Your task to perform on an android device: change text size in settings app Image 0: 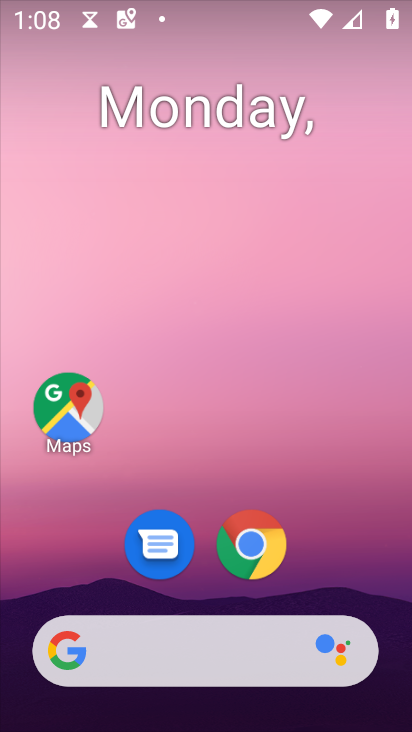
Step 0: drag from (334, 468) to (355, 167)
Your task to perform on an android device: change text size in settings app Image 1: 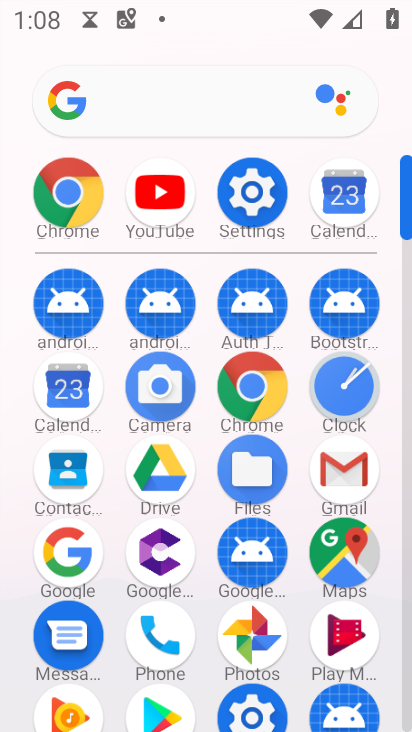
Step 1: click (237, 177)
Your task to perform on an android device: change text size in settings app Image 2: 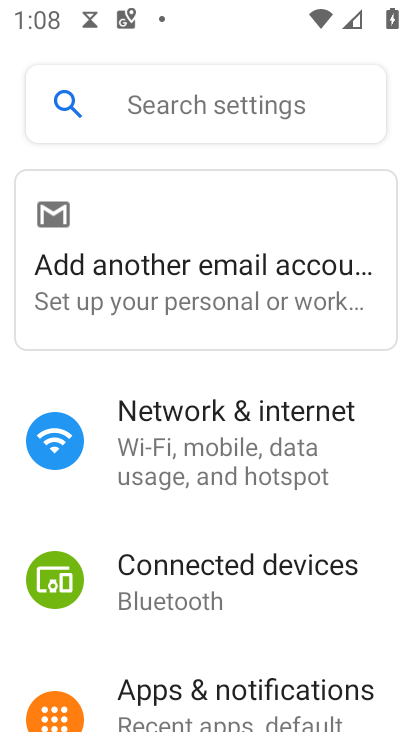
Step 2: drag from (253, 474) to (270, 332)
Your task to perform on an android device: change text size in settings app Image 3: 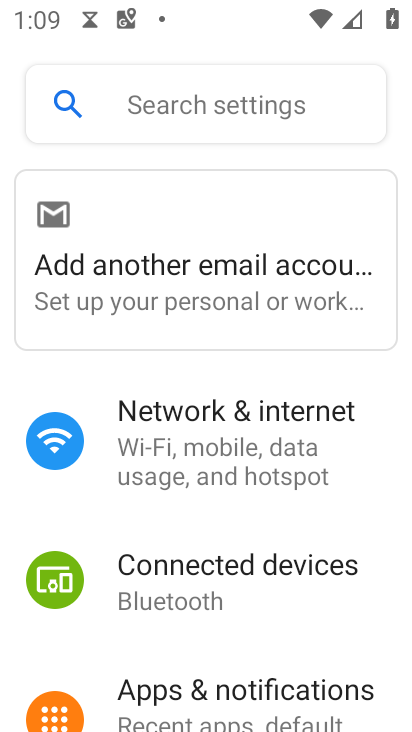
Step 3: drag from (230, 639) to (257, 249)
Your task to perform on an android device: change text size in settings app Image 4: 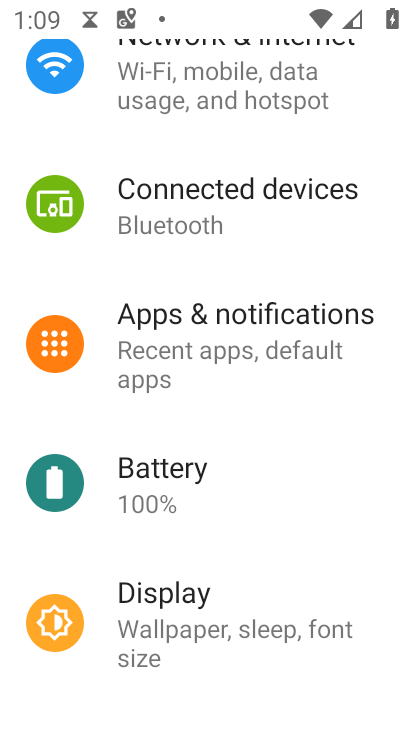
Step 4: drag from (237, 563) to (261, 316)
Your task to perform on an android device: change text size in settings app Image 5: 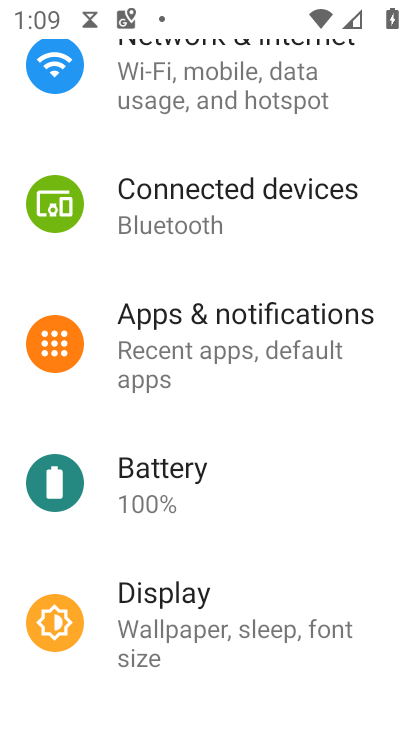
Step 5: drag from (259, 535) to (278, 329)
Your task to perform on an android device: change text size in settings app Image 6: 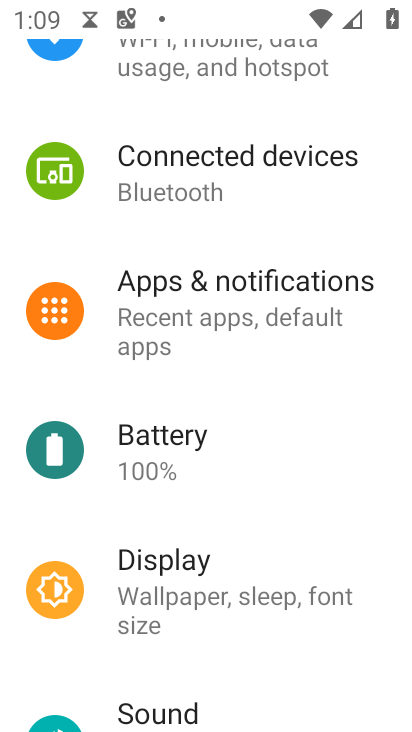
Step 6: drag from (273, 660) to (283, 313)
Your task to perform on an android device: change text size in settings app Image 7: 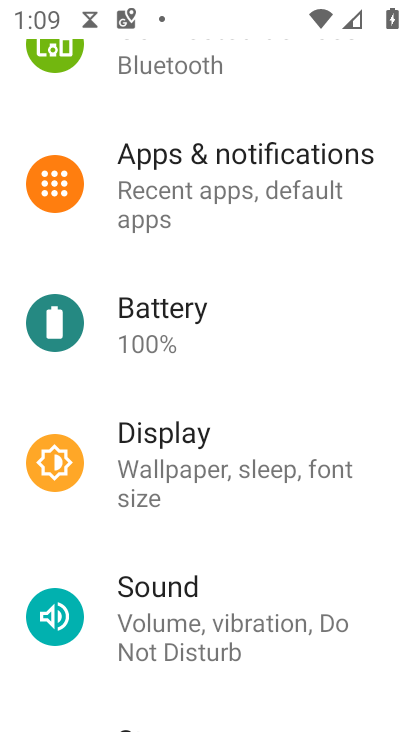
Step 7: click (273, 321)
Your task to perform on an android device: change text size in settings app Image 8: 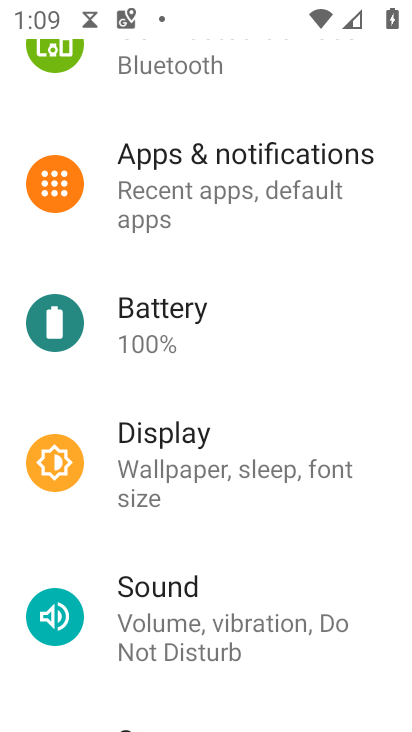
Step 8: click (269, 348)
Your task to perform on an android device: change text size in settings app Image 9: 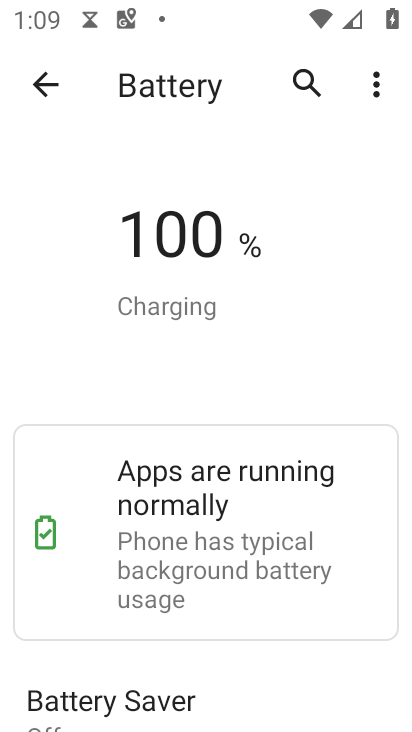
Step 9: click (49, 69)
Your task to perform on an android device: change text size in settings app Image 10: 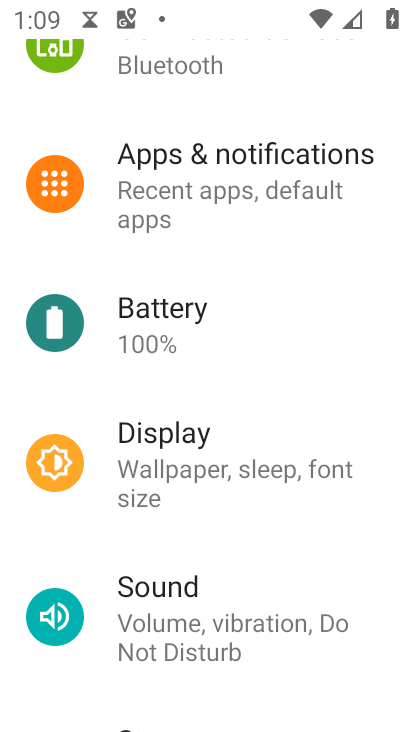
Step 10: drag from (229, 583) to (235, 211)
Your task to perform on an android device: change text size in settings app Image 11: 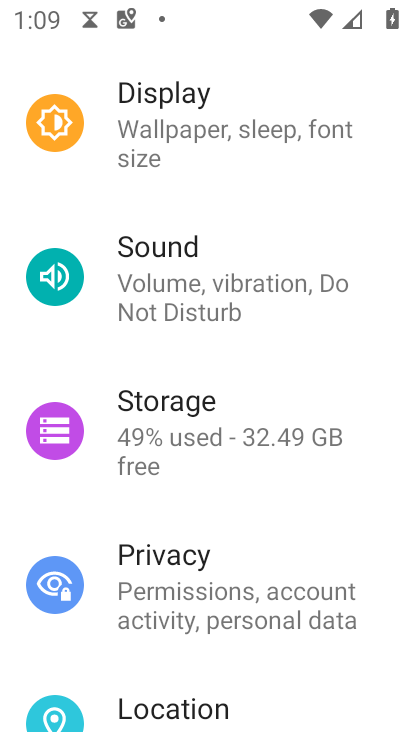
Step 11: drag from (259, 454) to (263, 283)
Your task to perform on an android device: change text size in settings app Image 12: 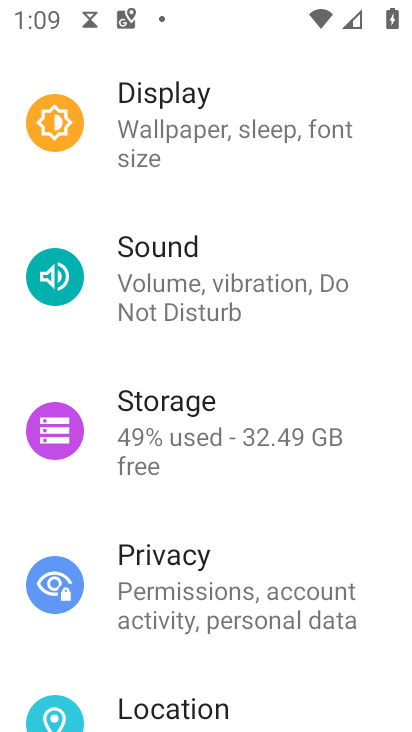
Step 12: drag from (264, 447) to (264, 401)
Your task to perform on an android device: change text size in settings app Image 13: 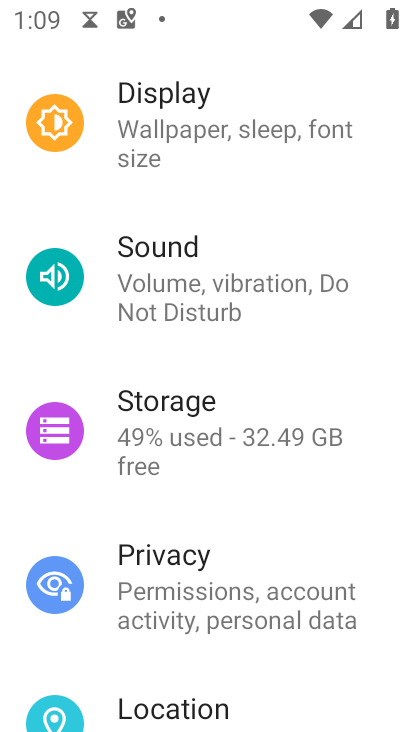
Step 13: click (202, 461)
Your task to perform on an android device: change text size in settings app Image 14: 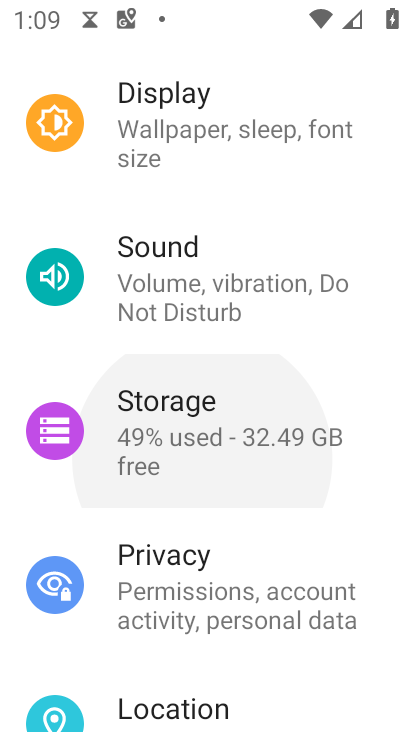
Step 14: drag from (158, 703) to (197, 418)
Your task to perform on an android device: change text size in settings app Image 15: 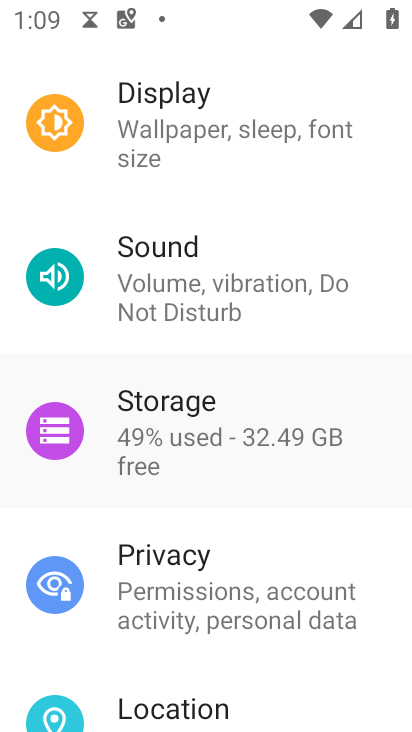
Step 15: drag from (210, 636) to (264, 382)
Your task to perform on an android device: change text size in settings app Image 16: 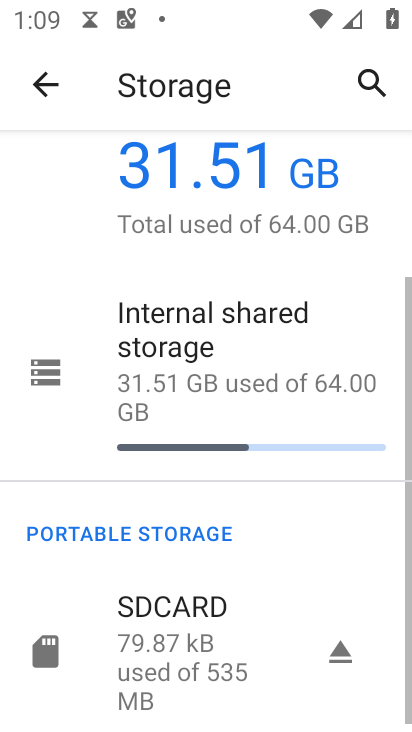
Step 16: drag from (323, 288) to (326, 162)
Your task to perform on an android device: change text size in settings app Image 17: 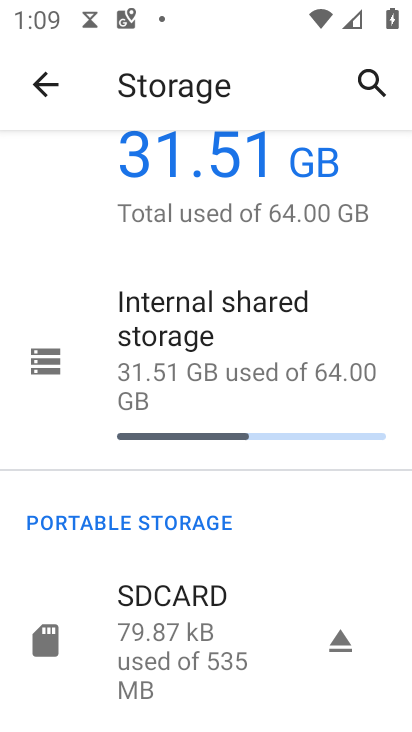
Step 17: click (37, 84)
Your task to perform on an android device: change text size in settings app Image 18: 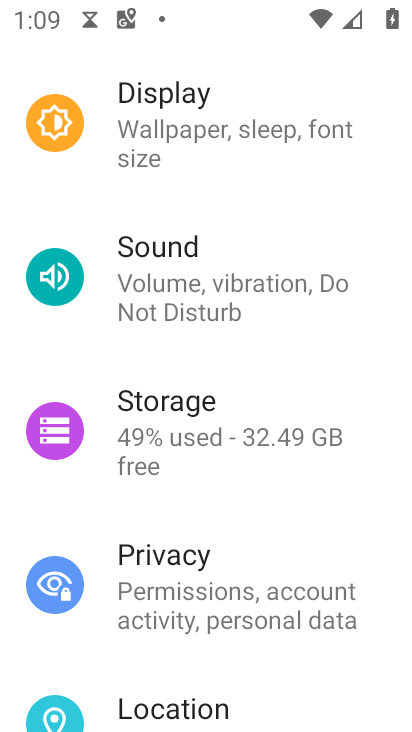
Step 18: drag from (277, 516) to (314, 165)
Your task to perform on an android device: change text size in settings app Image 19: 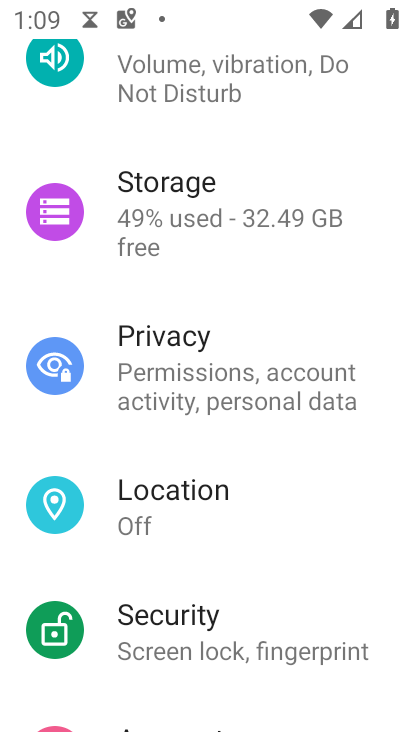
Step 19: drag from (292, 268) to (328, 112)
Your task to perform on an android device: change text size in settings app Image 20: 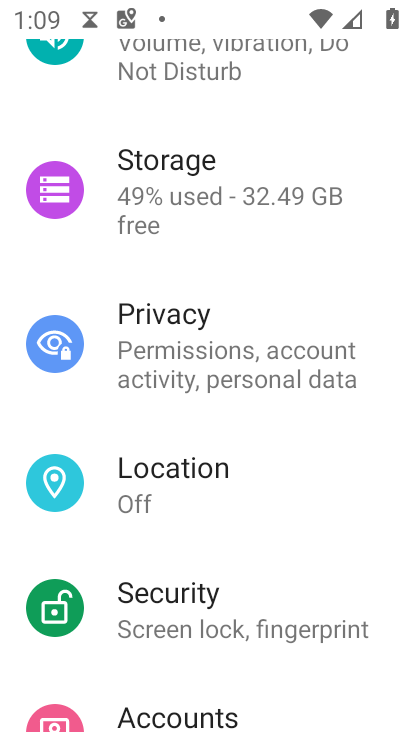
Step 20: drag from (268, 485) to (307, 175)
Your task to perform on an android device: change text size in settings app Image 21: 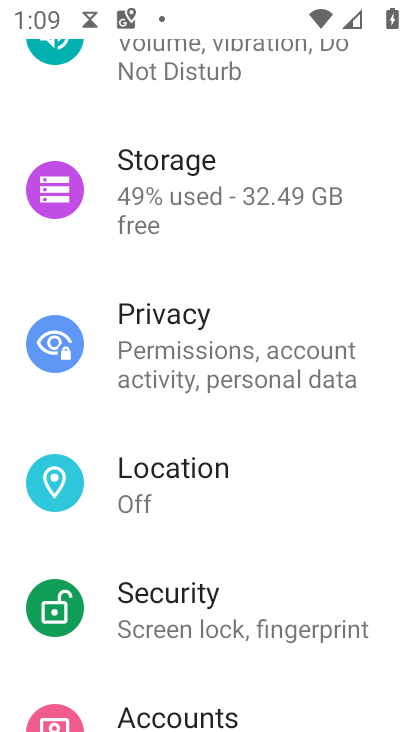
Step 21: drag from (196, 614) to (271, 171)
Your task to perform on an android device: change text size in settings app Image 22: 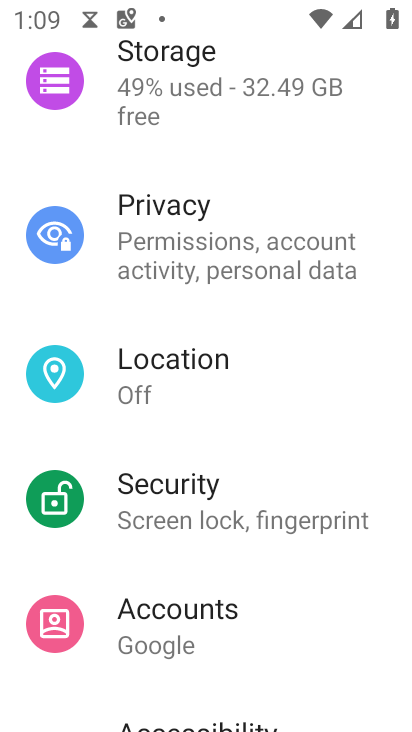
Step 22: drag from (164, 491) to (260, 133)
Your task to perform on an android device: change text size in settings app Image 23: 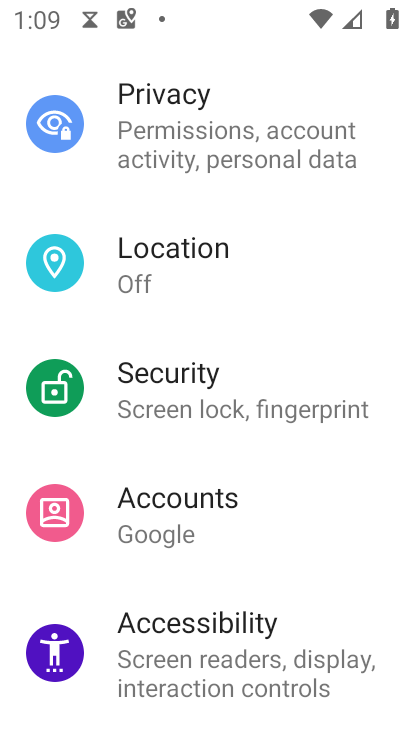
Step 23: drag from (162, 549) to (200, 503)
Your task to perform on an android device: change text size in settings app Image 24: 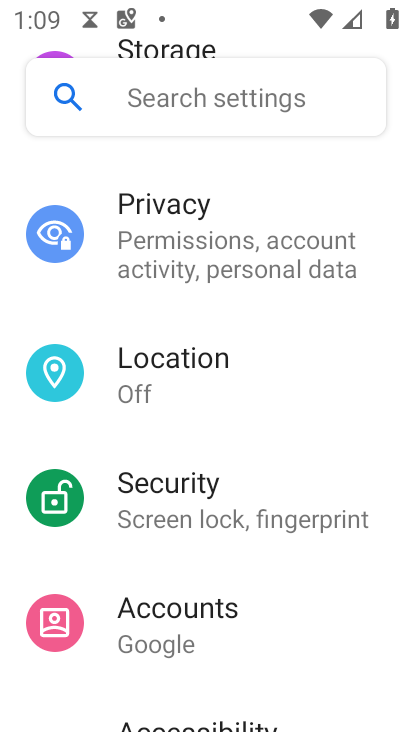
Step 24: click (200, 497)
Your task to perform on an android device: change text size in settings app Image 25: 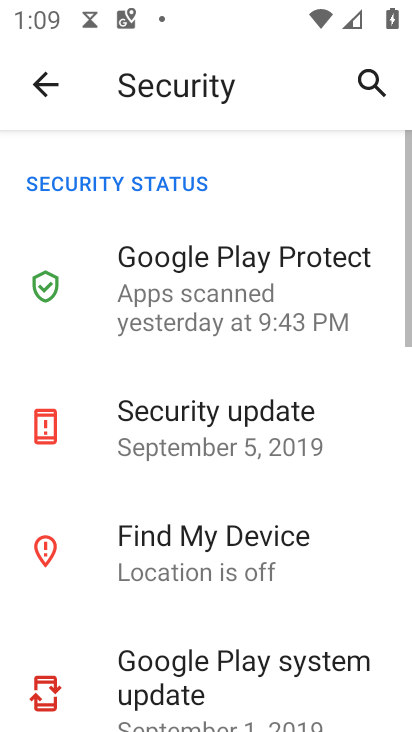
Step 25: click (58, 105)
Your task to perform on an android device: change text size in settings app Image 26: 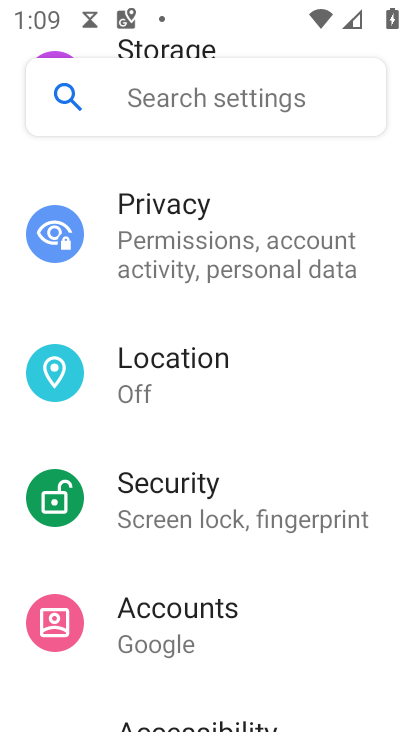
Step 26: drag from (223, 646) to (294, 17)
Your task to perform on an android device: change text size in settings app Image 27: 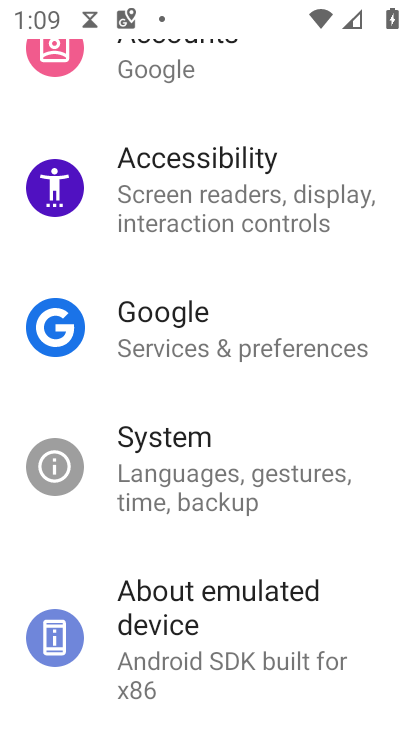
Step 27: click (179, 204)
Your task to perform on an android device: change text size in settings app Image 28: 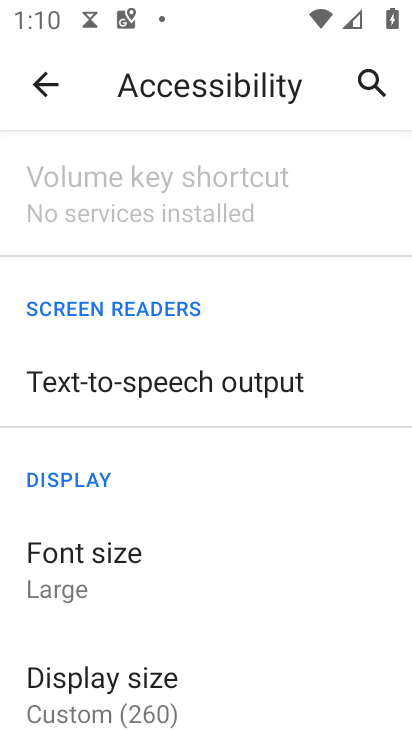
Step 28: click (109, 579)
Your task to perform on an android device: change text size in settings app Image 29: 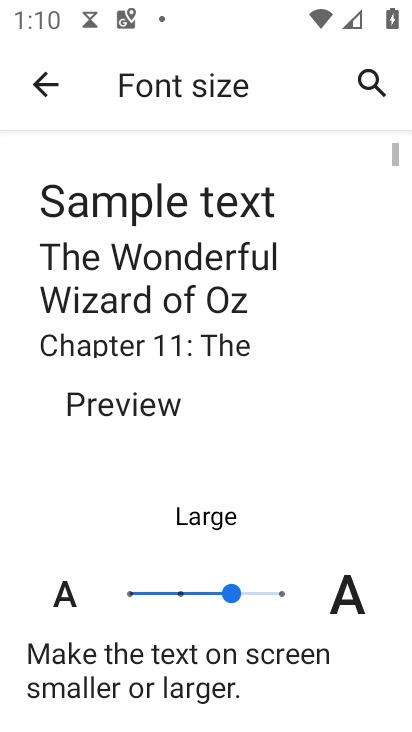
Step 29: click (181, 581)
Your task to perform on an android device: change text size in settings app Image 30: 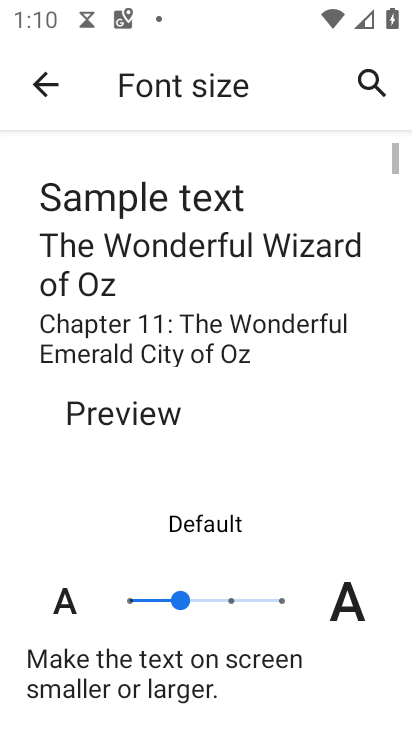
Step 30: task complete